Your task to perform on an android device: change keyboard looks Image 0: 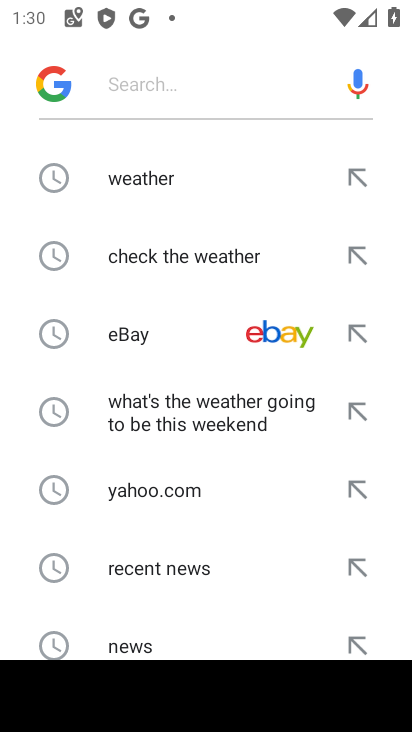
Step 0: press back button
Your task to perform on an android device: change keyboard looks Image 1: 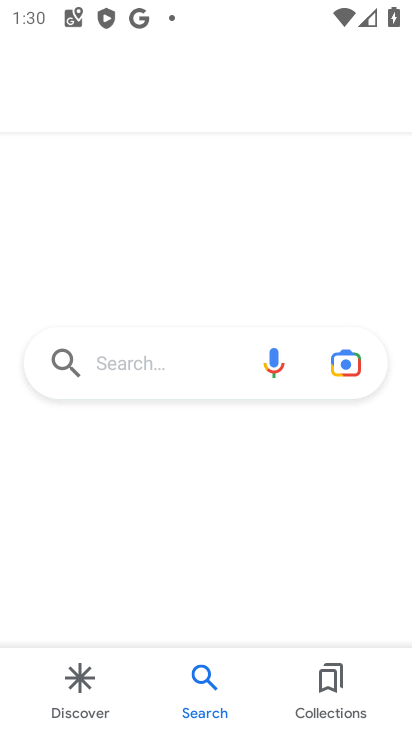
Step 1: press back button
Your task to perform on an android device: change keyboard looks Image 2: 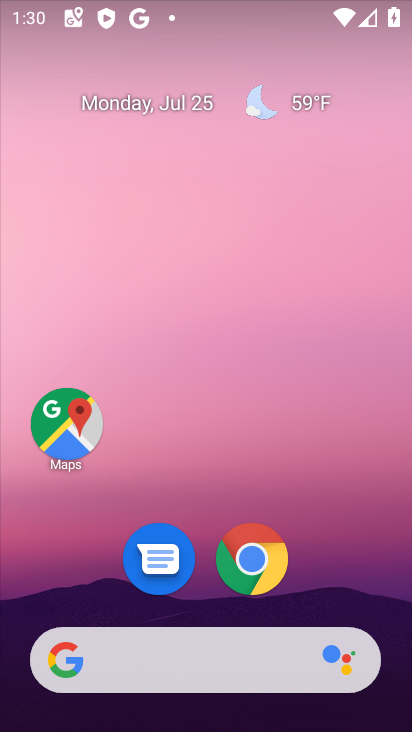
Step 2: drag from (36, 577) to (215, 6)
Your task to perform on an android device: change keyboard looks Image 3: 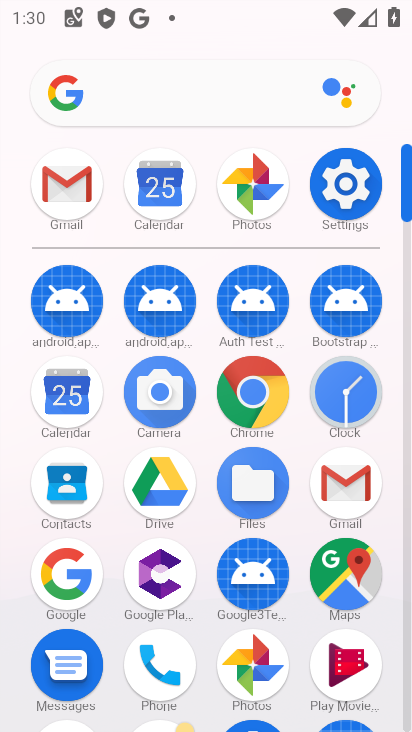
Step 3: click (371, 194)
Your task to perform on an android device: change keyboard looks Image 4: 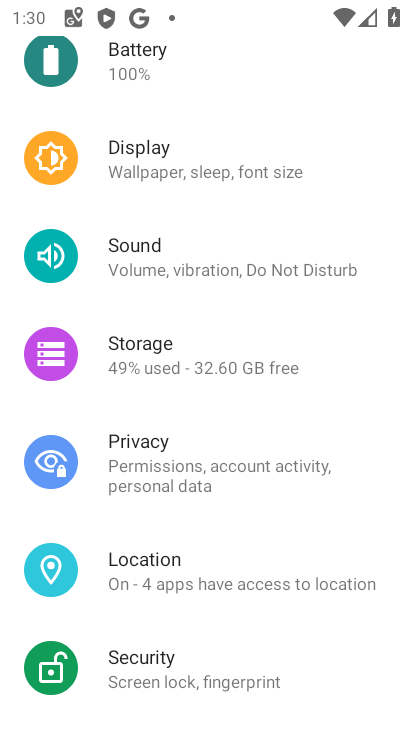
Step 4: drag from (179, 667) to (297, 3)
Your task to perform on an android device: change keyboard looks Image 5: 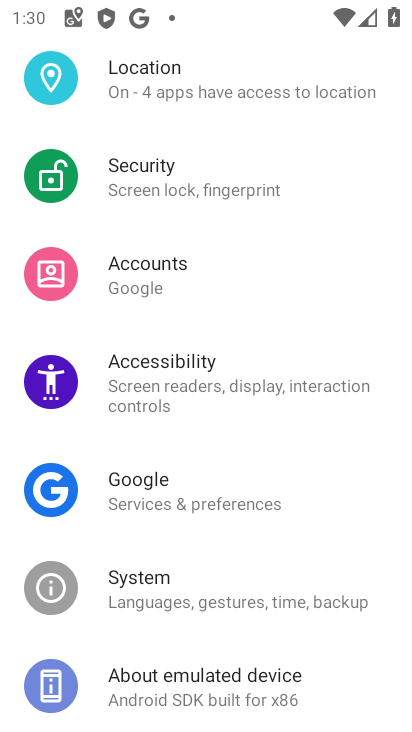
Step 5: click (162, 670)
Your task to perform on an android device: change keyboard looks Image 6: 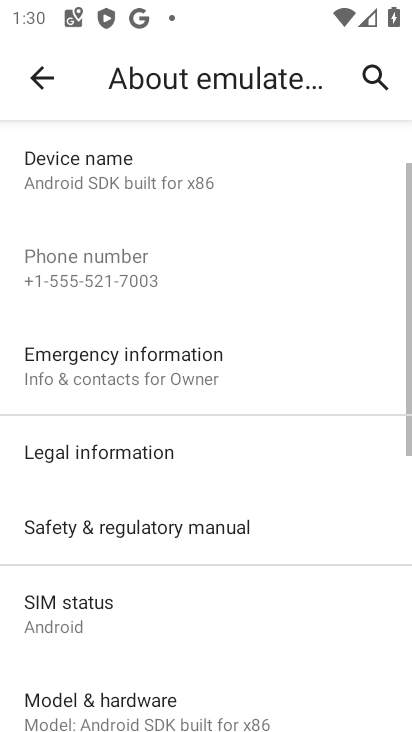
Step 6: drag from (186, 675) to (169, 730)
Your task to perform on an android device: change keyboard looks Image 7: 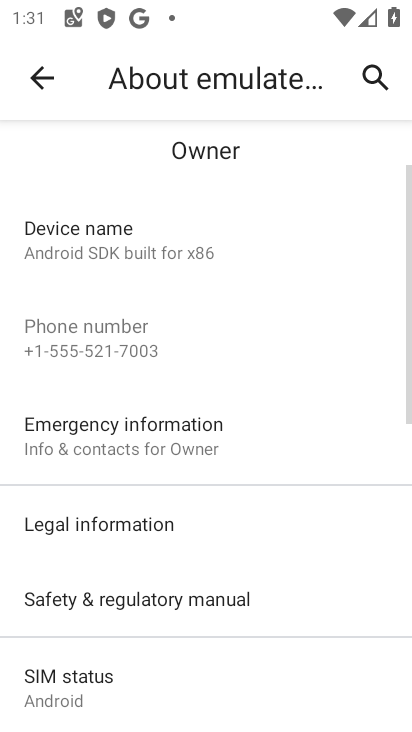
Step 7: click (28, 86)
Your task to perform on an android device: change keyboard looks Image 8: 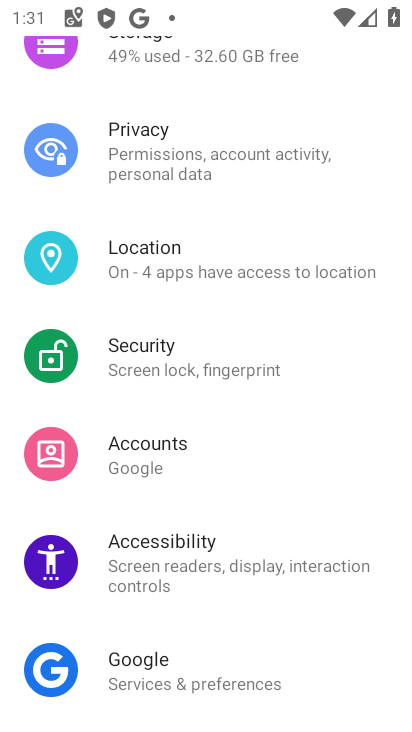
Step 8: drag from (231, 599) to (313, 14)
Your task to perform on an android device: change keyboard looks Image 9: 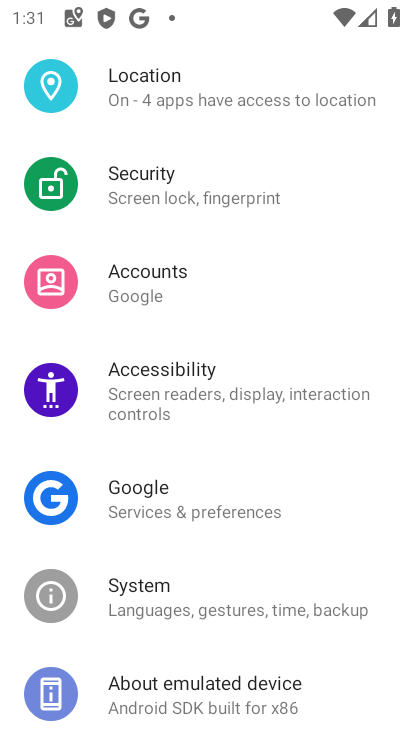
Step 9: click (197, 601)
Your task to perform on an android device: change keyboard looks Image 10: 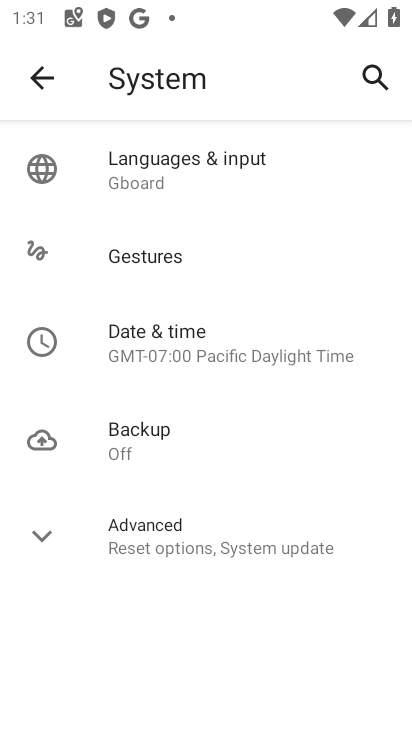
Step 10: click (146, 177)
Your task to perform on an android device: change keyboard looks Image 11: 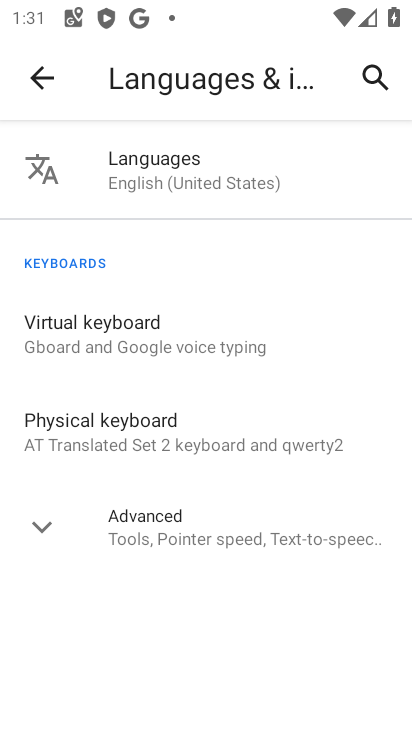
Step 11: click (140, 340)
Your task to perform on an android device: change keyboard looks Image 12: 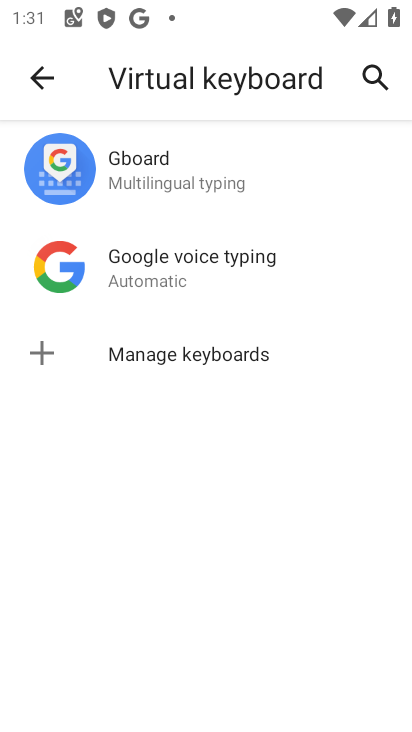
Step 12: click (217, 170)
Your task to perform on an android device: change keyboard looks Image 13: 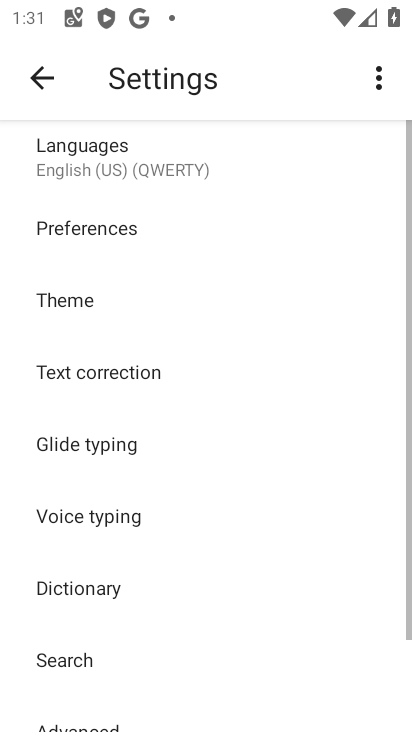
Step 13: click (81, 295)
Your task to perform on an android device: change keyboard looks Image 14: 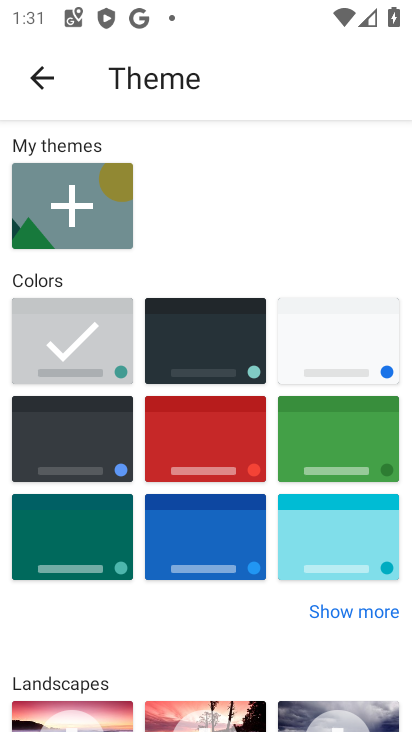
Step 14: click (348, 443)
Your task to perform on an android device: change keyboard looks Image 15: 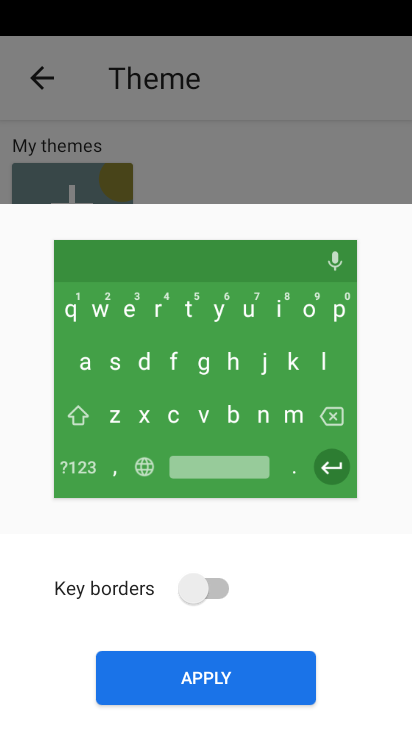
Step 15: click (171, 684)
Your task to perform on an android device: change keyboard looks Image 16: 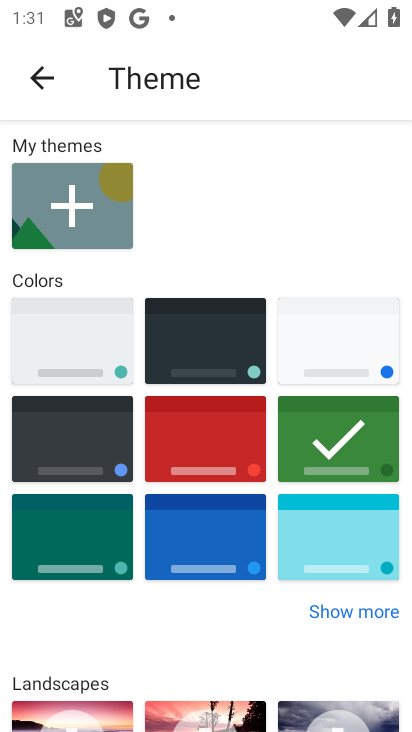
Step 16: task complete